Your task to perform on an android device: toggle pop-ups in chrome Image 0: 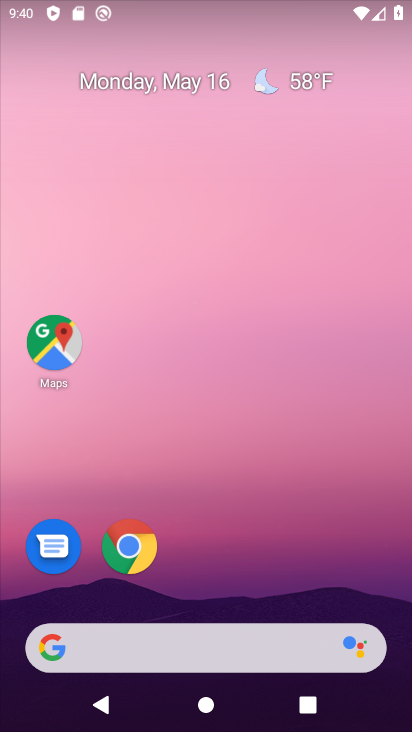
Step 0: click (129, 547)
Your task to perform on an android device: toggle pop-ups in chrome Image 1: 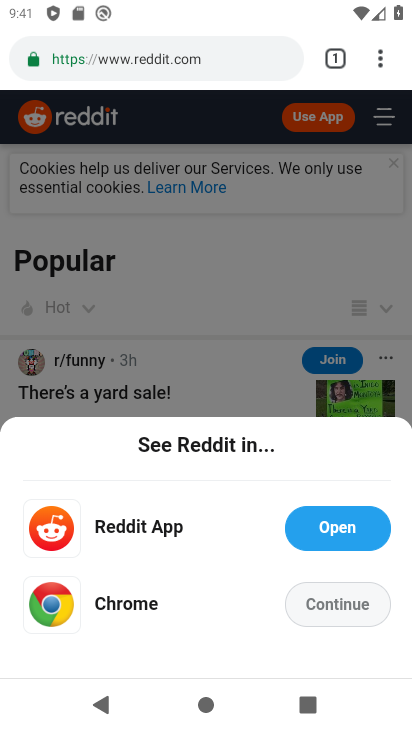
Step 1: click (379, 58)
Your task to perform on an android device: toggle pop-ups in chrome Image 2: 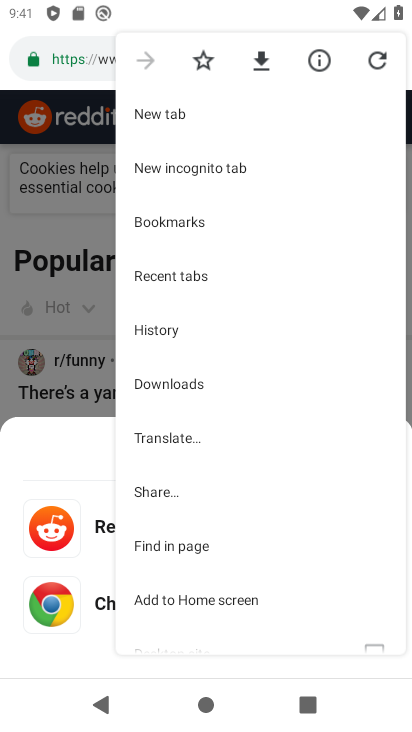
Step 2: drag from (219, 521) to (269, 450)
Your task to perform on an android device: toggle pop-ups in chrome Image 3: 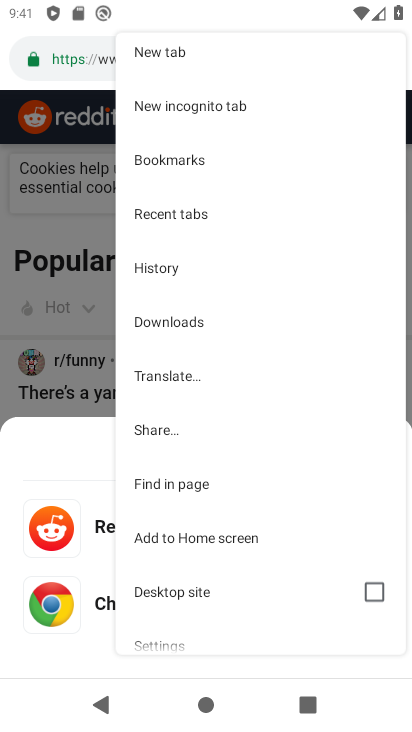
Step 3: drag from (261, 511) to (310, 438)
Your task to perform on an android device: toggle pop-ups in chrome Image 4: 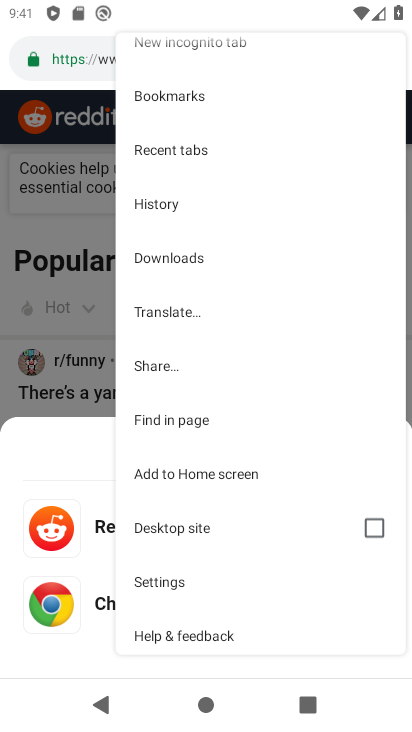
Step 4: click (172, 586)
Your task to perform on an android device: toggle pop-ups in chrome Image 5: 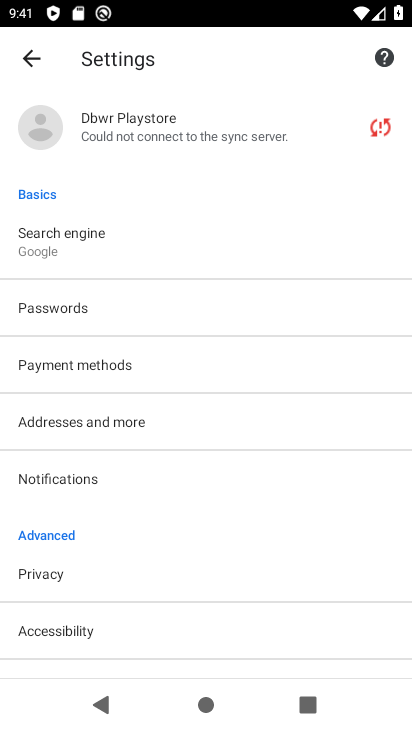
Step 5: drag from (135, 548) to (179, 466)
Your task to perform on an android device: toggle pop-ups in chrome Image 6: 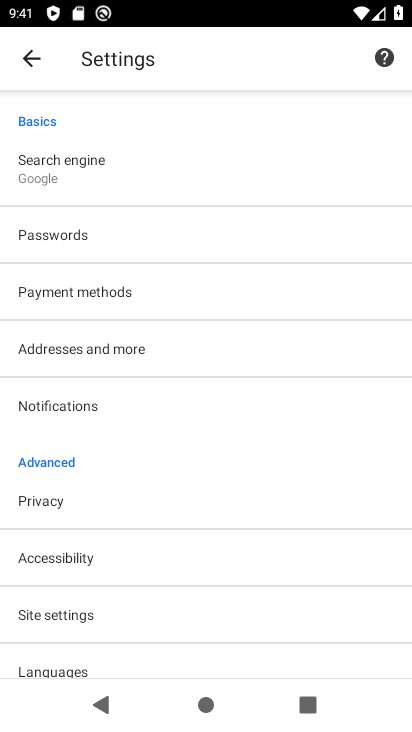
Step 6: drag from (121, 575) to (167, 471)
Your task to perform on an android device: toggle pop-ups in chrome Image 7: 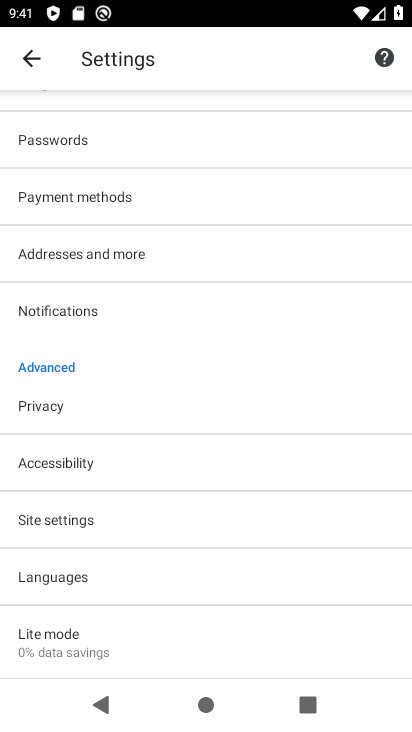
Step 7: click (62, 526)
Your task to perform on an android device: toggle pop-ups in chrome Image 8: 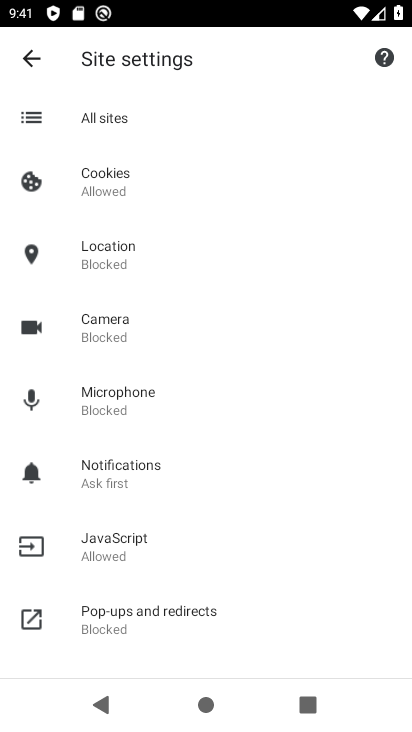
Step 8: drag from (157, 583) to (204, 492)
Your task to perform on an android device: toggle pop-ups in chrome Image 9: 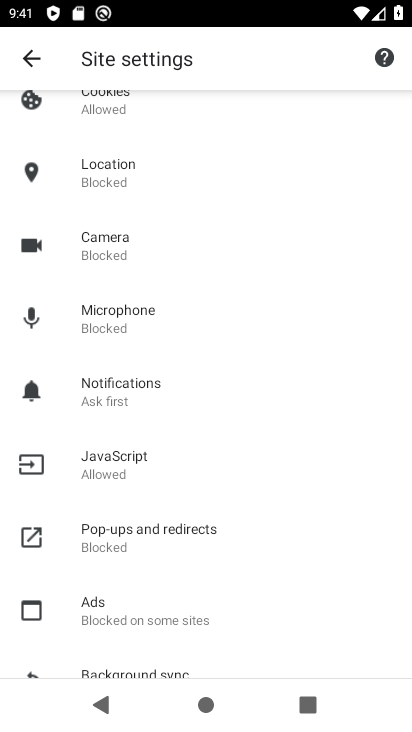
Step 9: click (156, 539)
Your task to perform on an android device: toggle pop-ups in chrome Image 10: 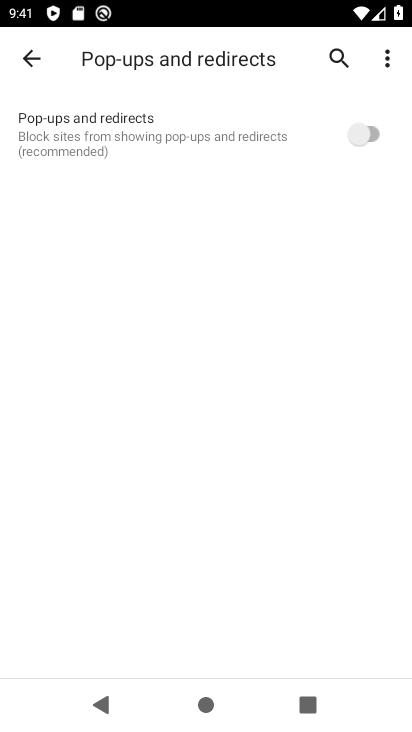
Step 10: click (356, 141)
Your task to perform on an android device: toggle pop-ups in chrome Image 11: 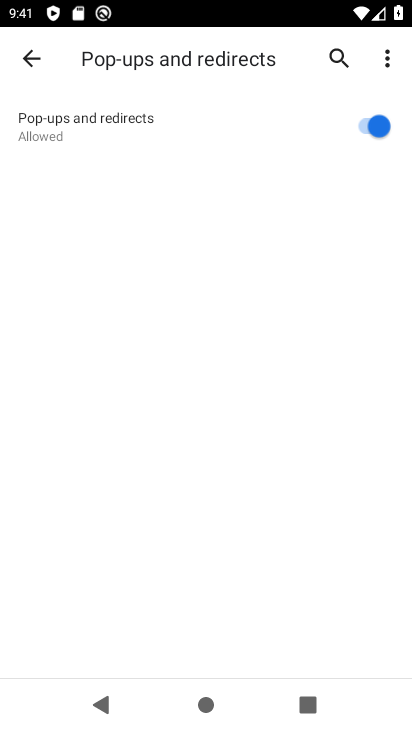
Step 11: task complete